Your task to perform on an android device: empty trash in google photos Image 0: 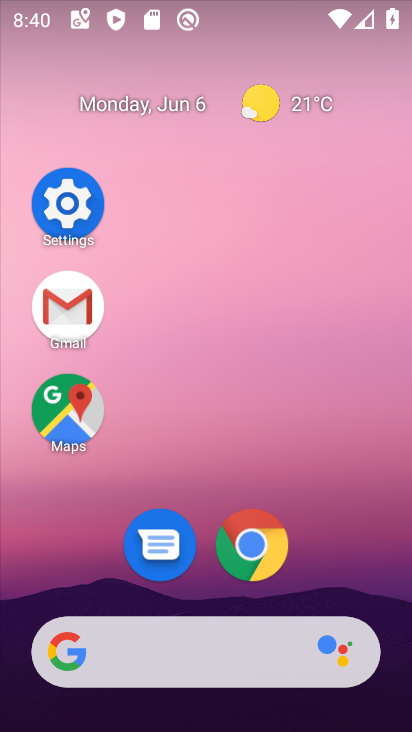
Step 0: drag from (319, 449) to (296, 127)
Your task to perform on an android device: empty trash in google photos Image 1: 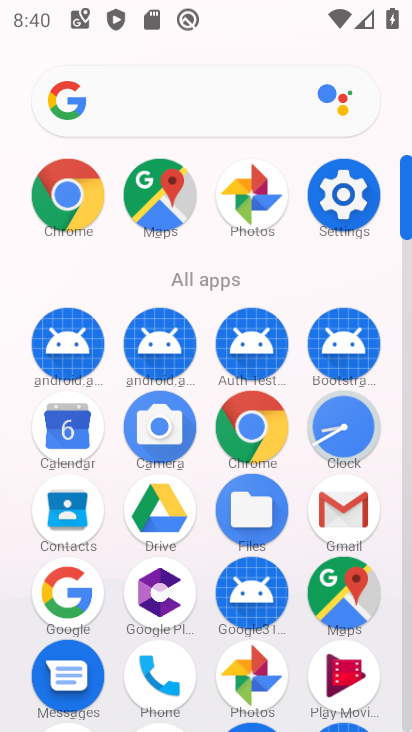
Step 1: click (230, 207)
Your task to perform on an android device: empty trash in google photos Image 2: 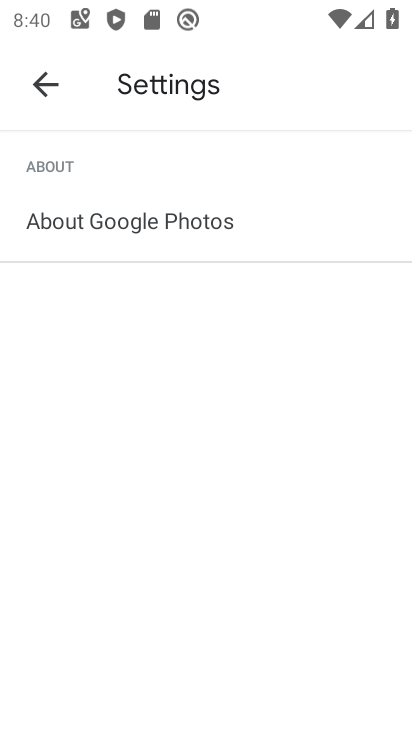
Step 2: click (41, 102)
Your task to perform on an android device: empty trash in google photos Image 3: 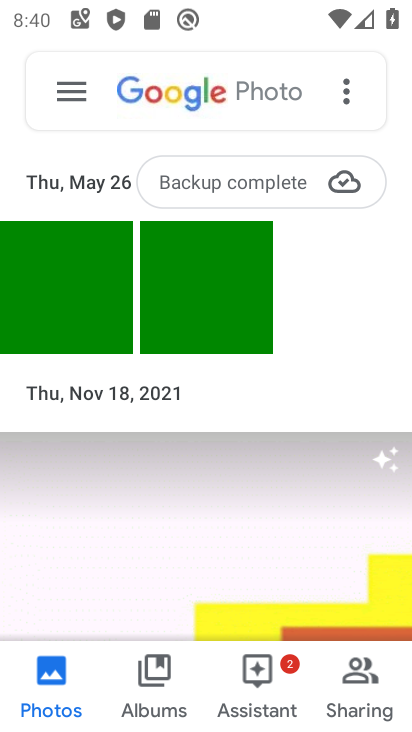
Step 3: click (59, 83)
Your task to perform on an android device: empty trash in google photos Image 4: 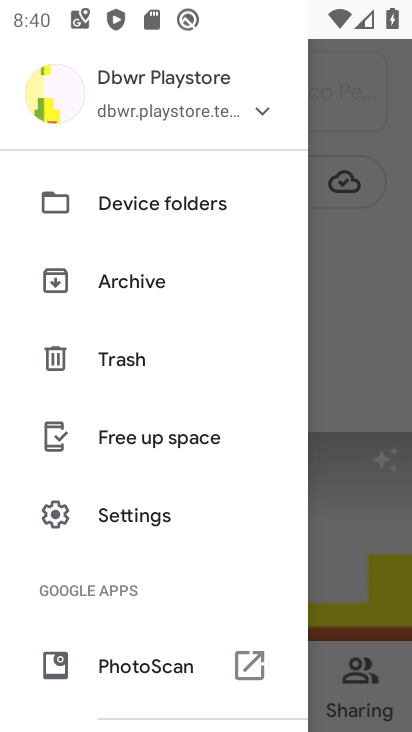
Step 4: click (150, 364)
Your task to perform on an android device: empty trash in google photos Image 5: 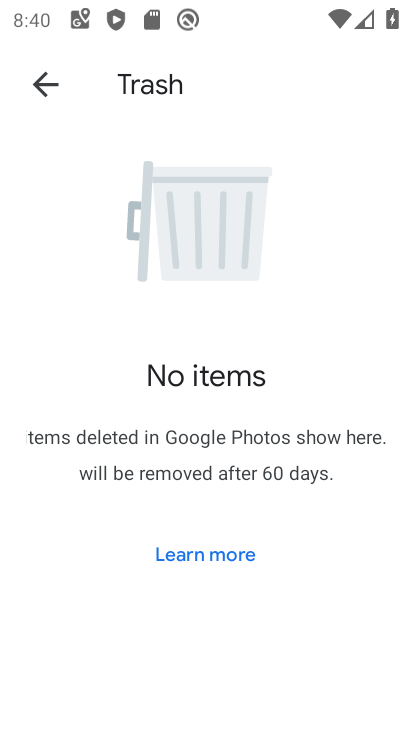
Step 5: task complete